Your task to perform on an android device: turn on sleep mode Image 0: 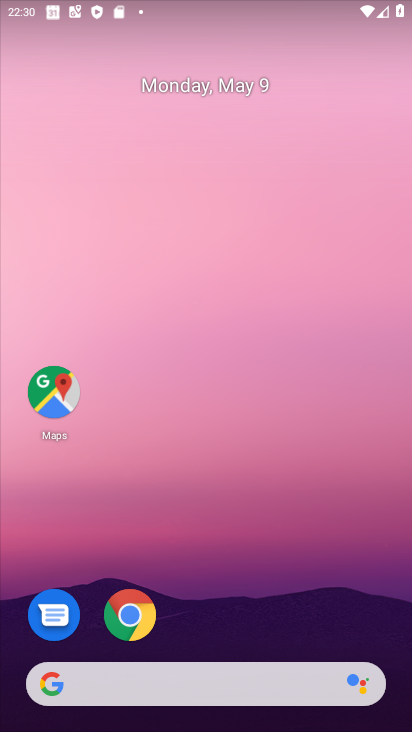
Step 0: drag from (198, 633) to (210, 261)
Your task to perform on an android device: turn on sleep mode Image 1: 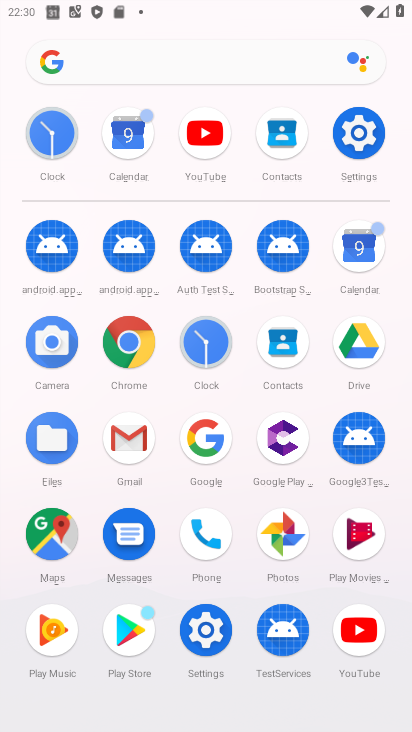
Step 1: click (362, 134)
Your task to perform on an android device: turn on sleep mode Image 2: 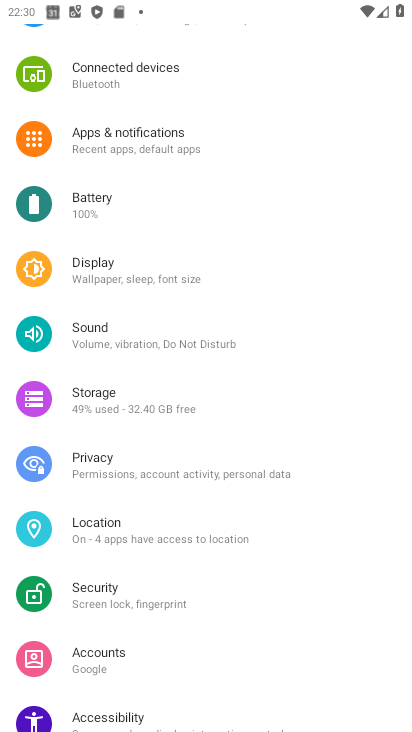
Step 2: click (133, 276)
Your task to perform on an android device: turn on sleep mode Image 3: 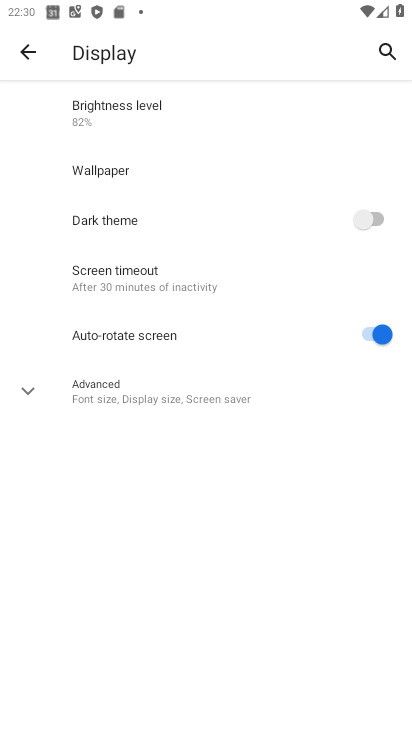
Step 3: task complete